Your task to perform on an android device: Set the phone to "Do not disturb". Image 0: 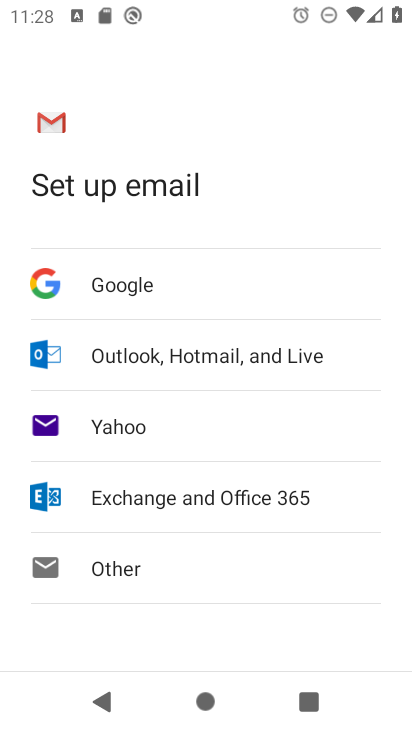
Step 0: press home button
Your task to perform on an android device: Set the phone to "Do not disturb". Image 1: 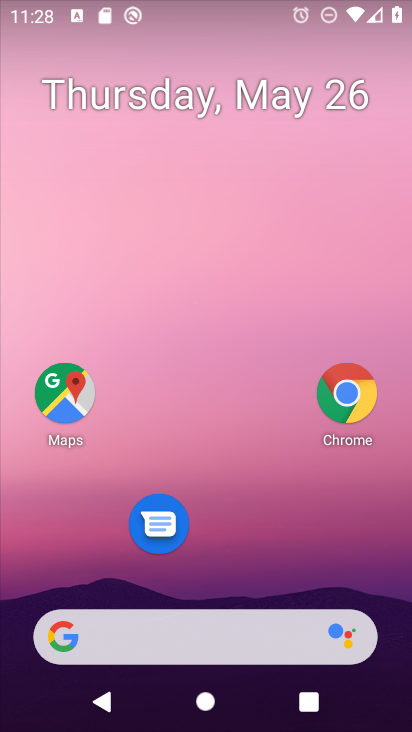
Step 1: drag from (255, 516) to (256, 41)
Your task to perform on an android device: Set the phone to "Do not disturb". Image 2: 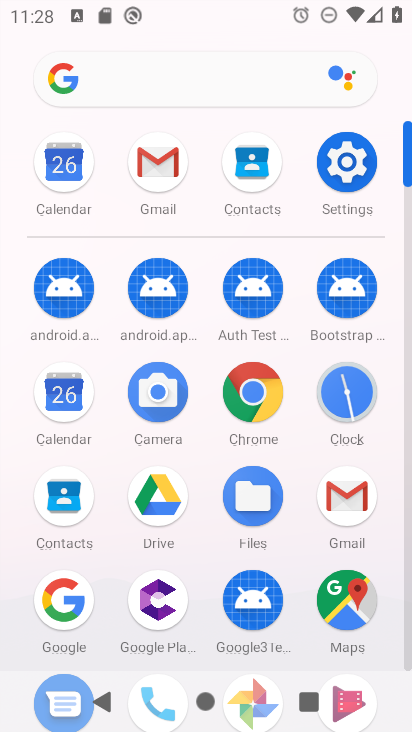
Step 2: click (350, 168)
Your task to perform on an android device: Set the phone to "Do not disturb". Image 3: 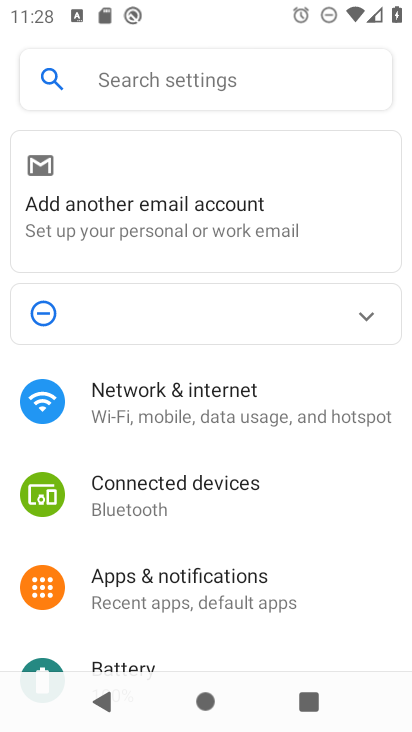
Step 3: drag from (241, 553) to (219, 71)
Your task to perform on an android device: Set the phone to "Do not disturb". Image 4: 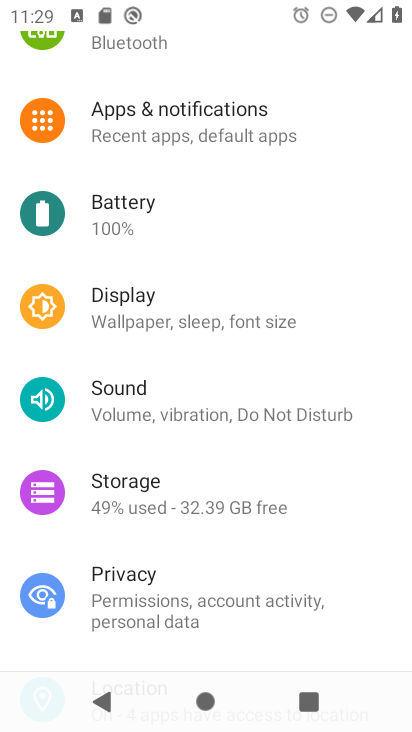
Step 4: click (173, 396)
Your task to perform on an android device: Set the phone to "Do not disturb". Image 5: 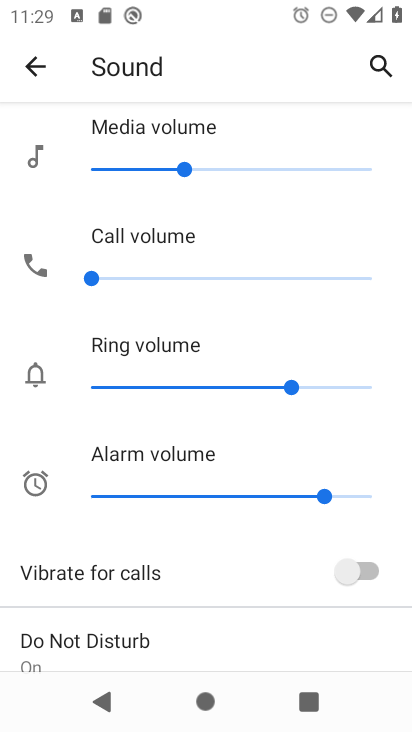
Step 5: task complete